Your task to perform on an android device: Open calendar and show me the second week of next month Image 0: 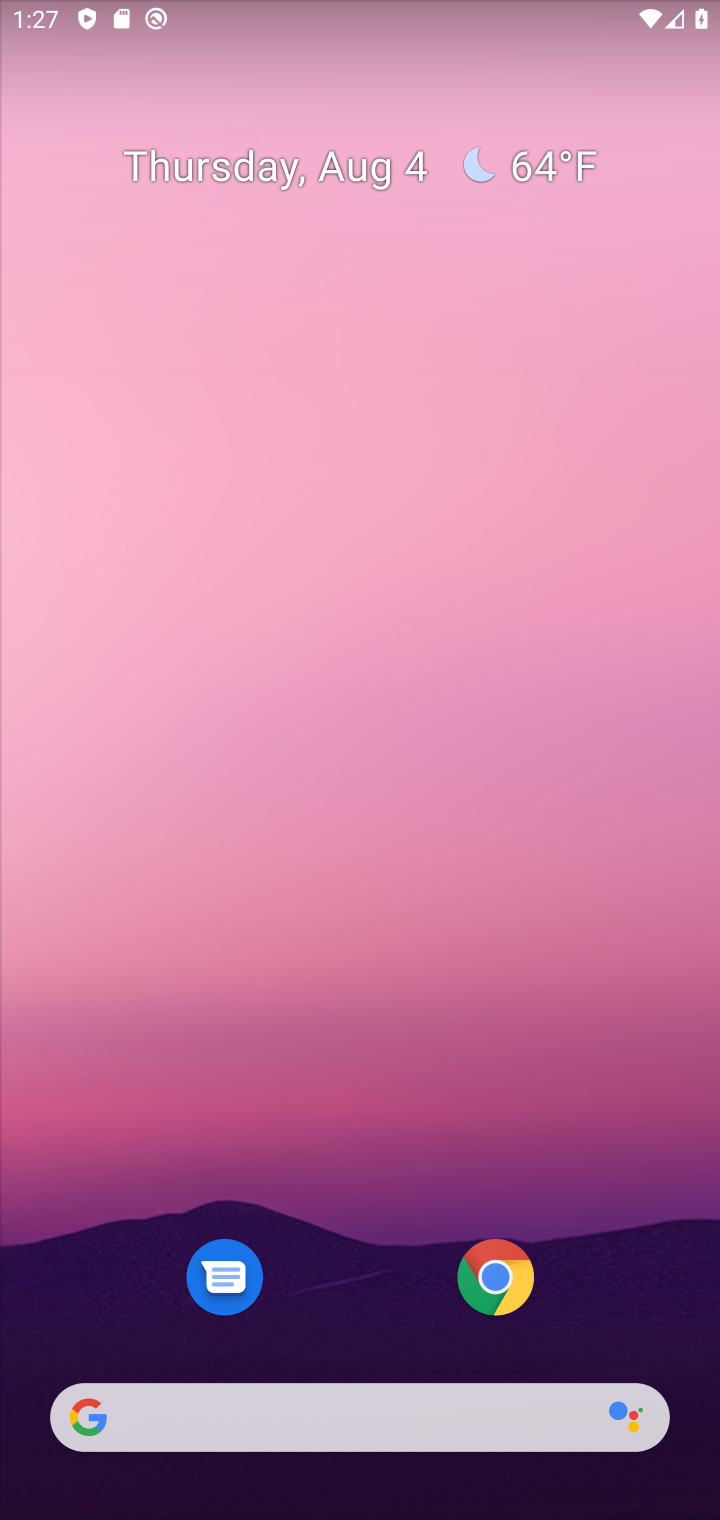
Step 0: drag from (372, 1112) to (490, 231)
Your task to perform on an android device: Open calendar and show me the second week of next month Image 1: 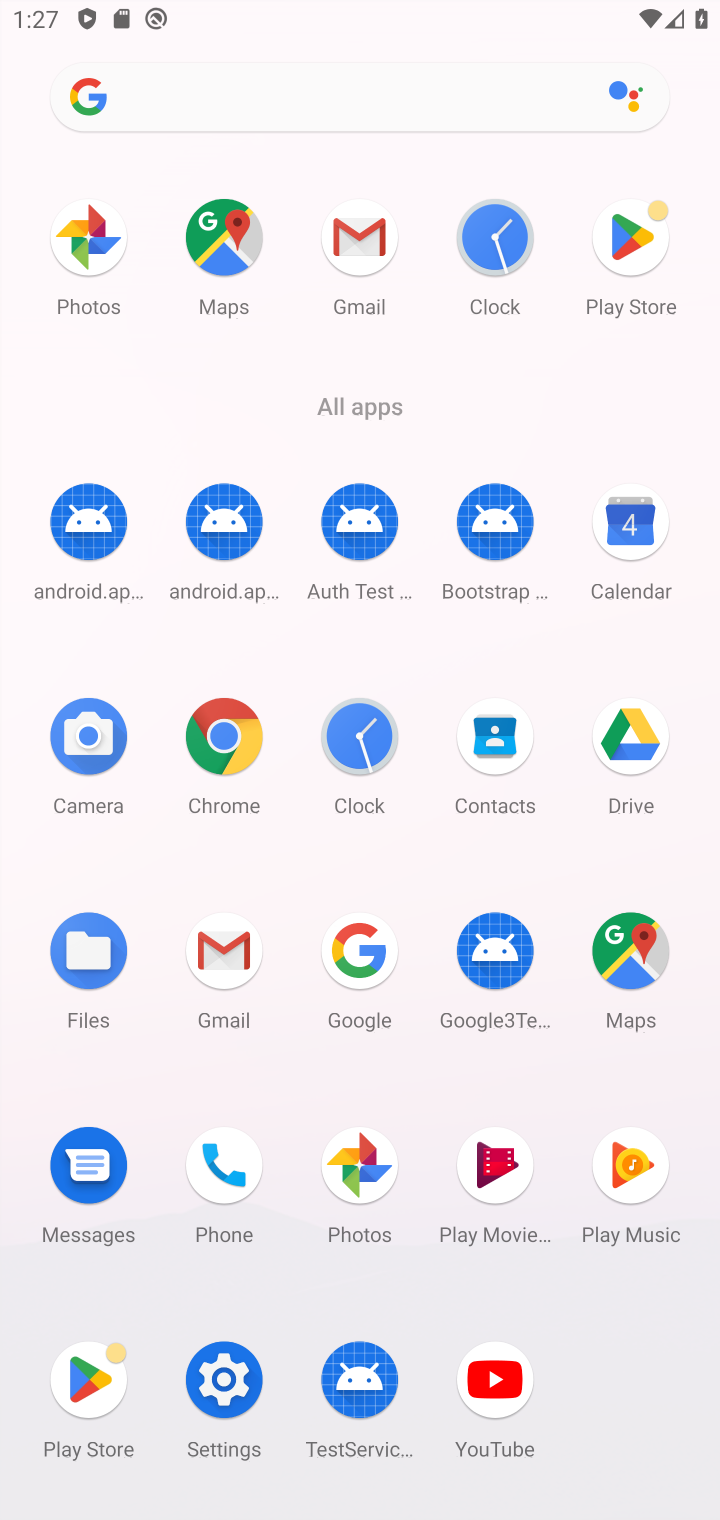
Step 1: click (636, 516)
Your task to perform on an android device: Open calendar and show me the second week of next month Image 2: 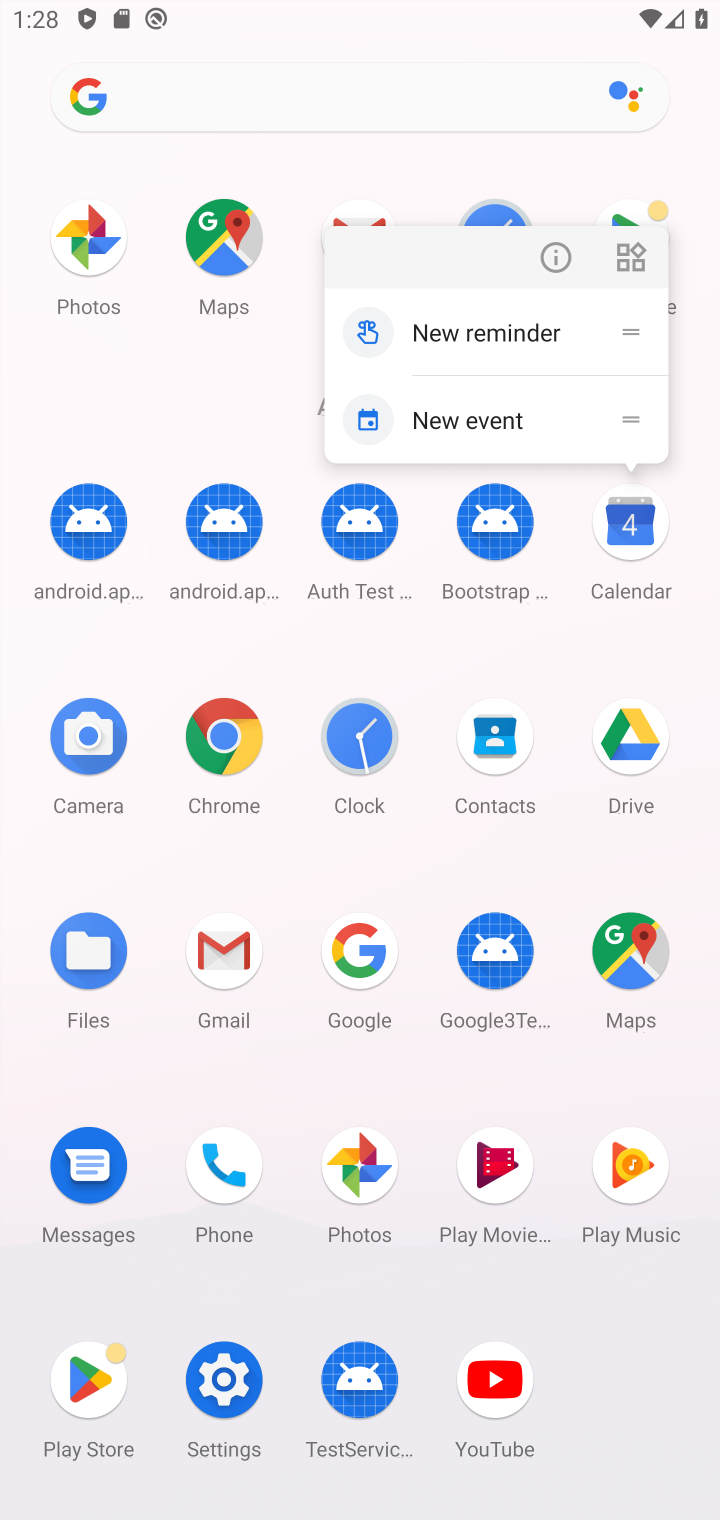
Step 2: click (629, 551)
Your task to perform on an android device: Open calendar and show me the second week of next month Image 3: 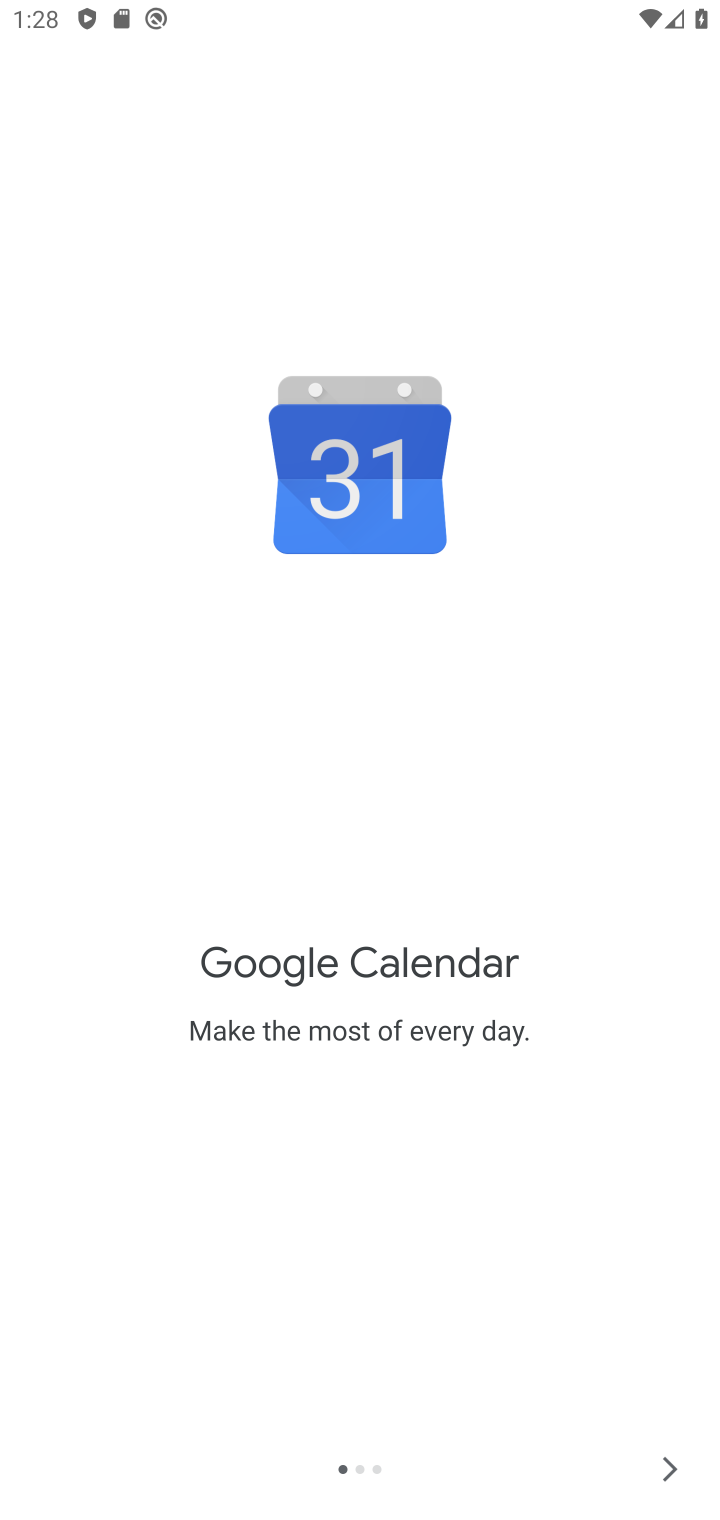
Step 3: click (644, 1481)
Your task to perform on an android device: Open calendar and show me the second week of next month Image 4: 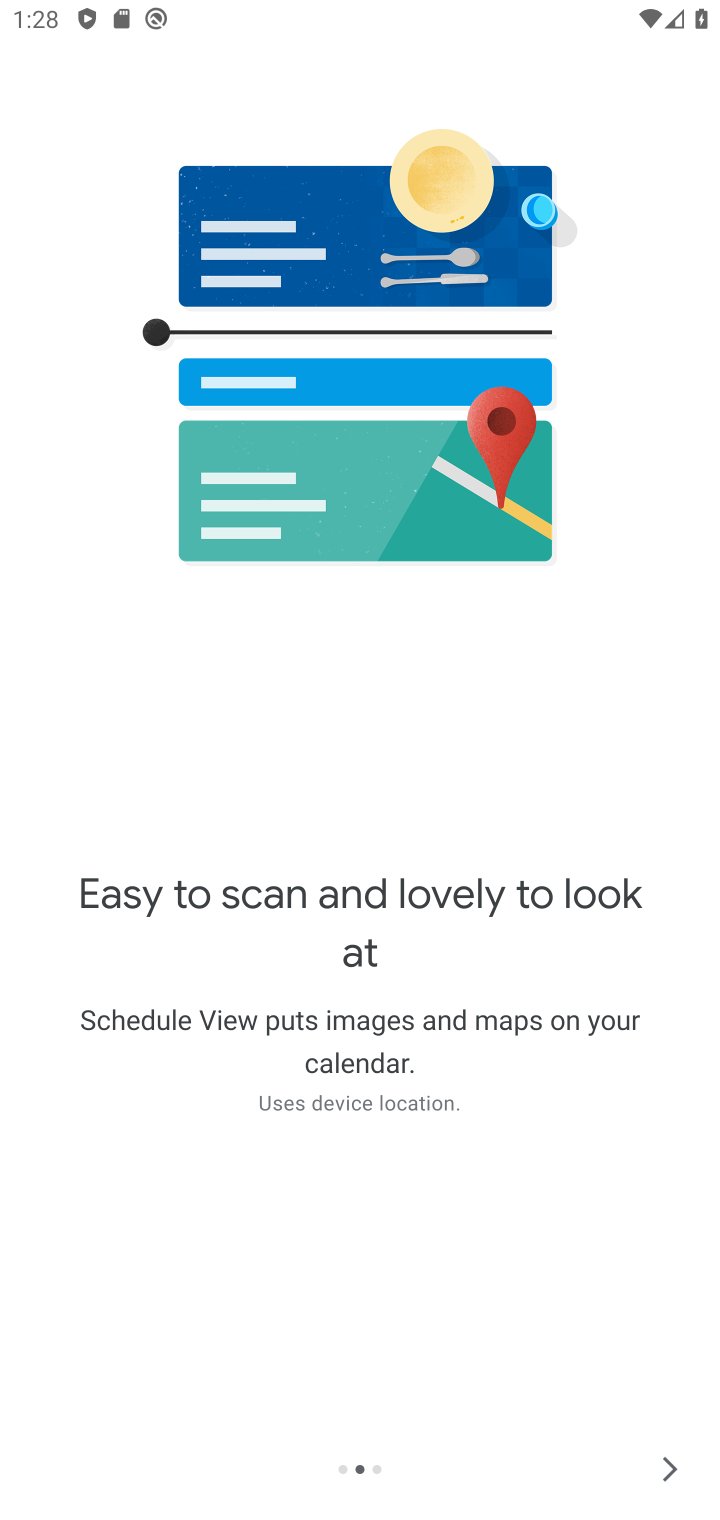
Step 4: click (644, 1449)
Your task to perform on an android device: Open calendar and show me the second week of next month Image 5: 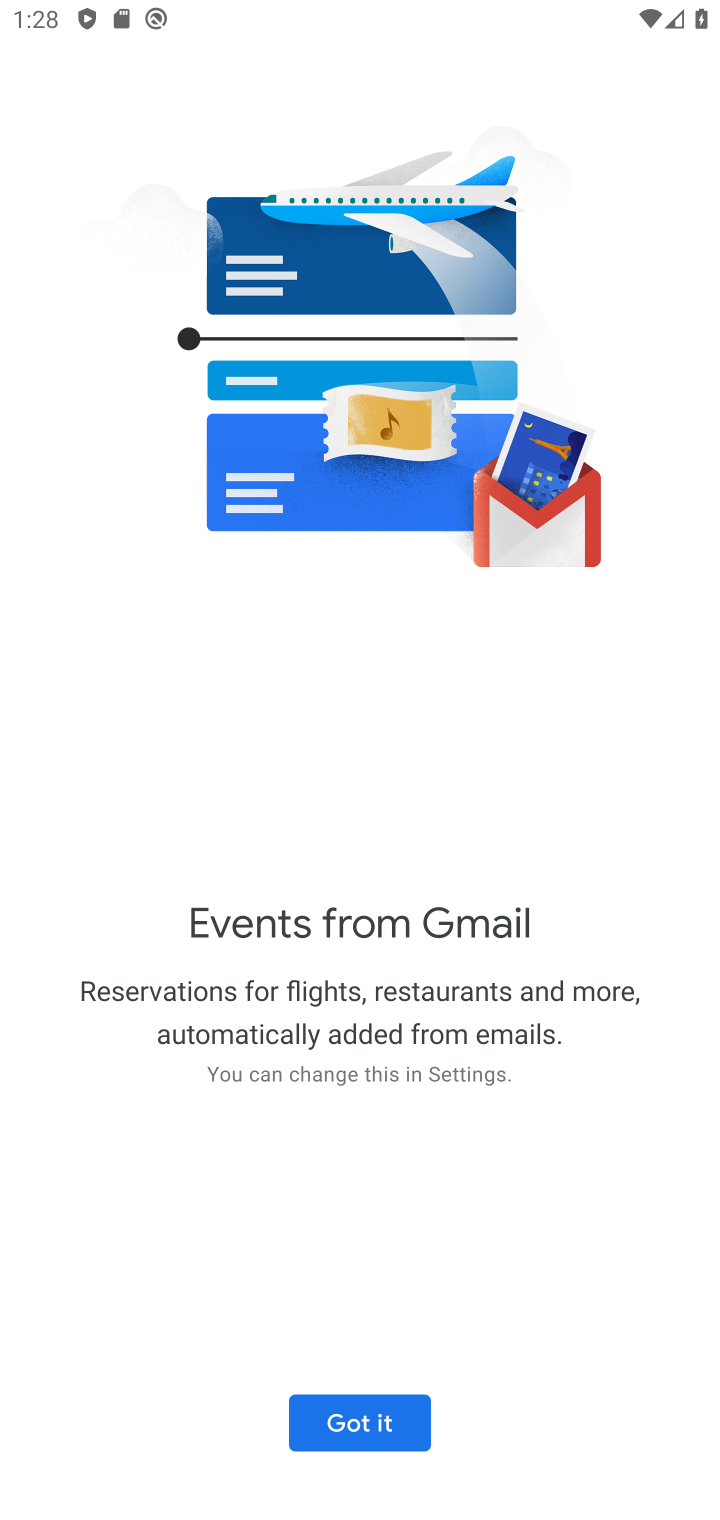
Step 5: click (380, 1407)
Your task to perform on an android device: Open calendar and show me the second week of next month Image 6: 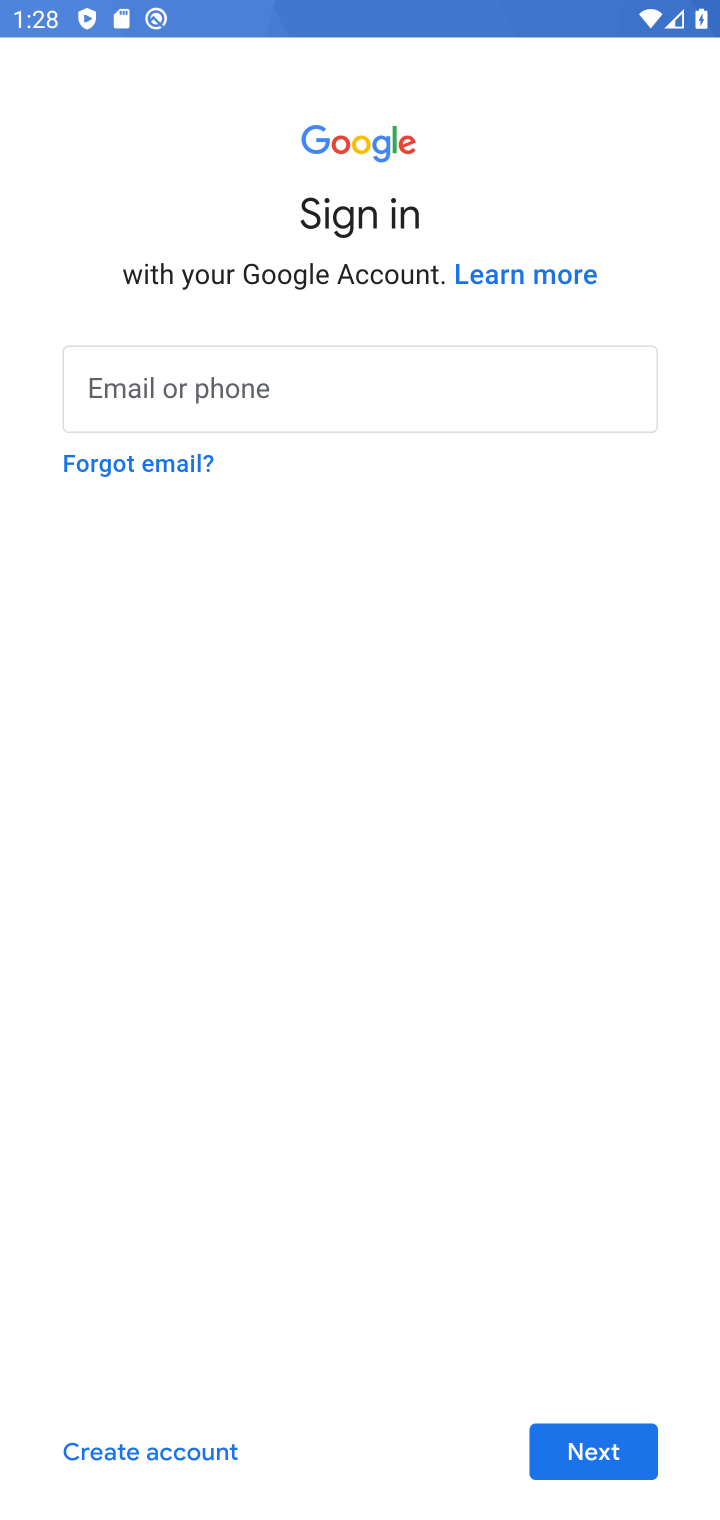
Step 6: click (590, 1437)
Your task to perform on an android device: Open calendar and show me the second week of next month Image 7: 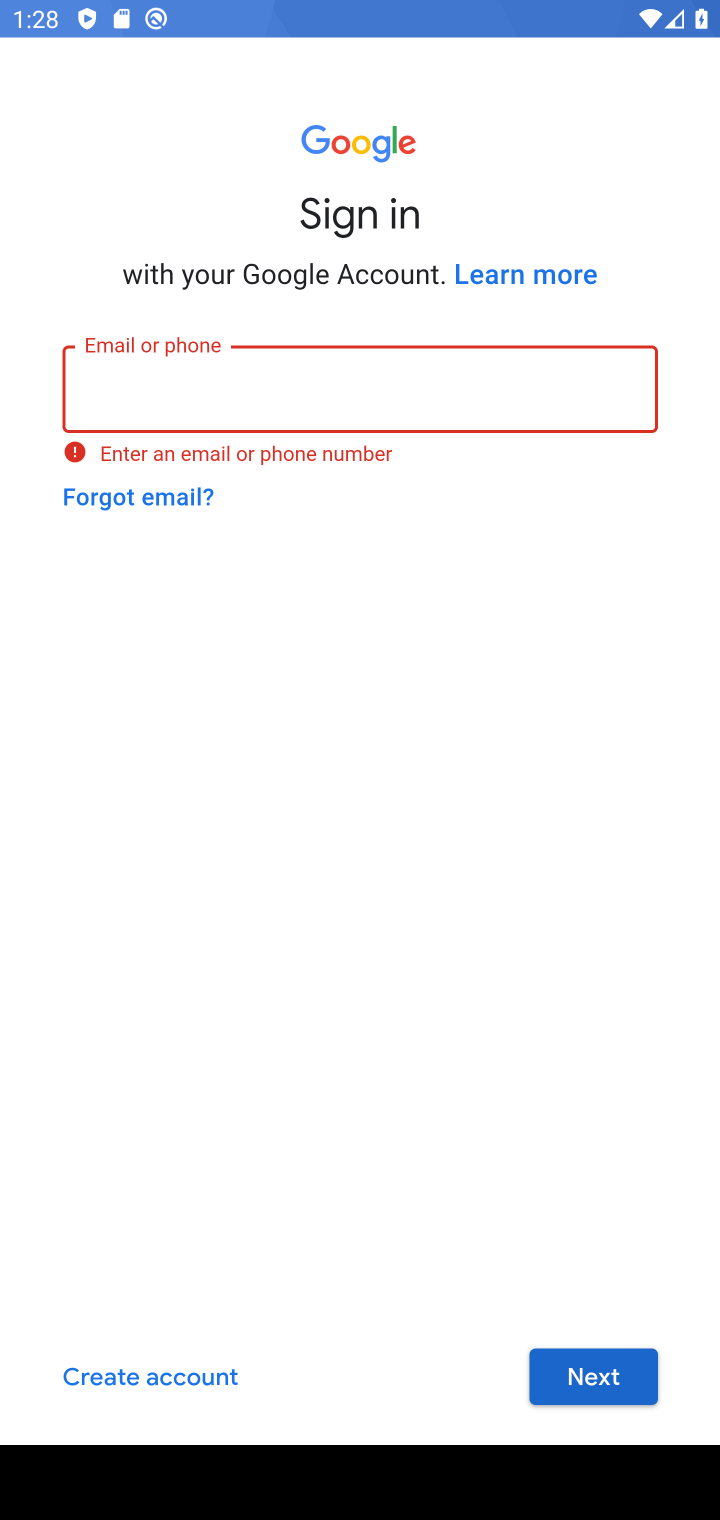
Step 7: task complete